Your task to perform on an android device: Add bose soundlink mini to the cart on target, then select checkout. Image 0: 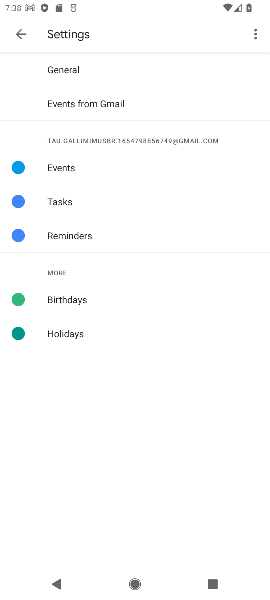
Step 0: press home button
Your task to perform on an android device: Add bose soundlink mini to the cart on target, then select checkout. Image 1: 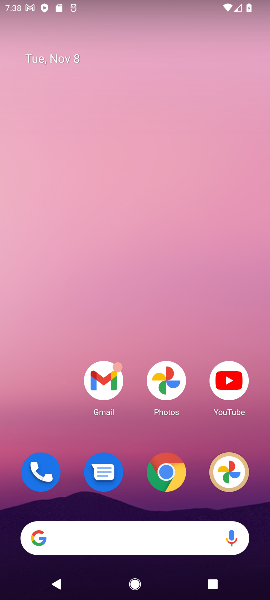
Step 1: click (162, 474)
Your task to perform on an android device: Add bose soundlink mini to the cart on target, then select checkout. Image 2: 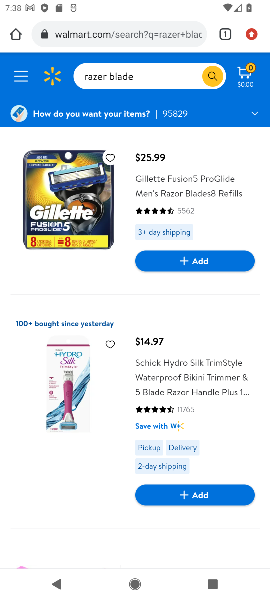
Step 2: click (134, 31)
Your task to perform on an android device: Add bose soundlink mini to the cart on target, then select checkout. Image 3: 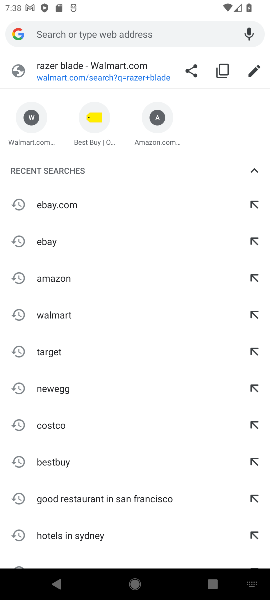
Step 3: click (50, 351)
Your task to perform on an android device: Add bose soundlink mini to the cart on target, then select checkout. Image 4: 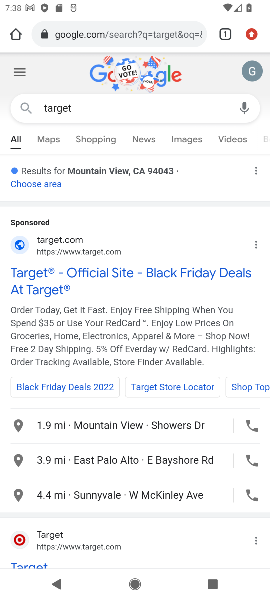
Step 4: click (92, 268)
Your task to perform on an android device: Add bose soundlink mini to the cart on target, then select checkout. Image 5: 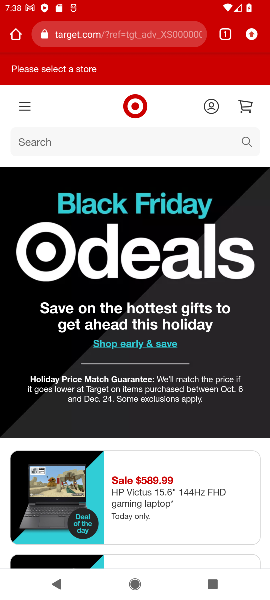
Step 5: click (57, 142)
Your task to perform on an android device: Add bose soundlink mini to the cart on target, then select checkout. Image 6: 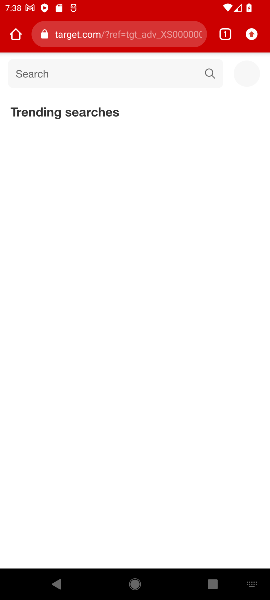
Step 6: click (53, 73)
Your task to perform on an android device: Add bose soundlink mini to the cart on target, then select checkout. Image 7: 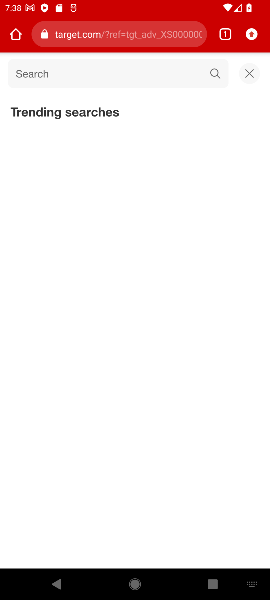
Step 7: type "bose soundlink mini"
Your task to perform on an android device: Add bose soundlink mini to the cart on target, then select checkout. Image 8: 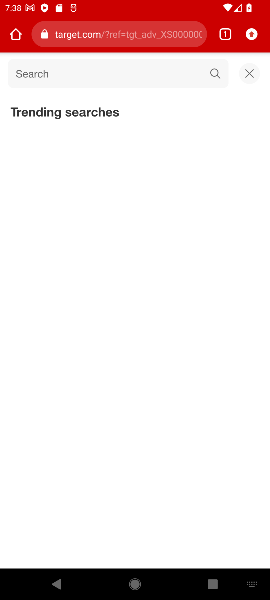
Step 8: press enter
Your task to perform on an android device: Add bose soundlink mini to the cart on target, then select checkout. Image 9: 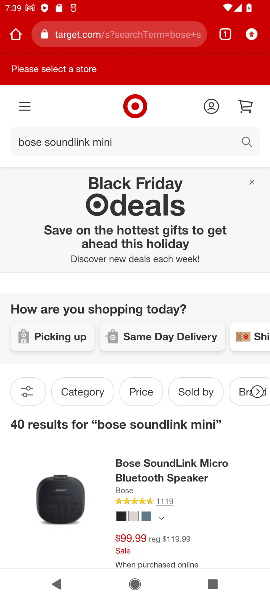
Step 9: drag from (214, 450) to (221, 309)
Your task to perform on an android device: Add bose soundlink mini to the cart on target, then select checkout. Image 10: 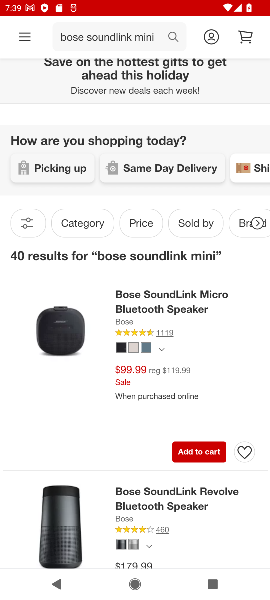
Step 10: click (197, 454)
Your task to perform on an android device: Add bose soundlink mini to the cart on target, then select checkout. Image 11: 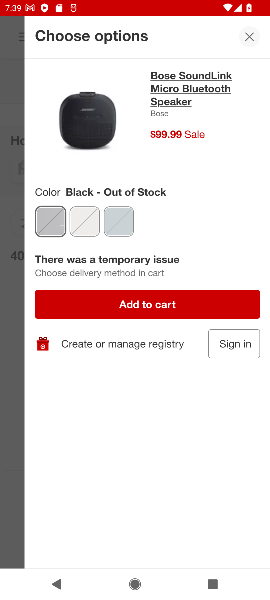
Step 11: click (156, 307)
Your task to perform on an android device: Add bose soundlink mini to the cart on target, then select checkout. Image 12: 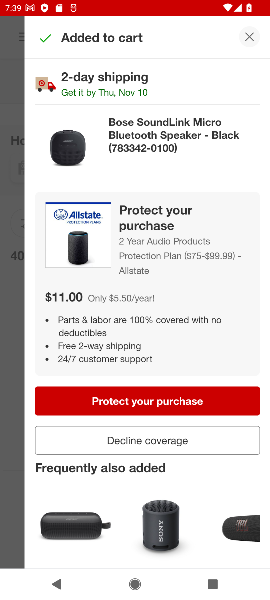
Step 12: click (138, 434)
Your task to perform on an android device: Add bose soundlink mini to the cart on target, then select checkout. Image 13: 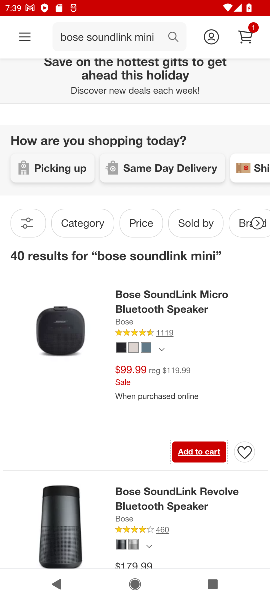
Step 13: click (247, 31)
Your task to perform on an android device: Add bose soundlink mini to the cart on target, then select checkout. Image 14: 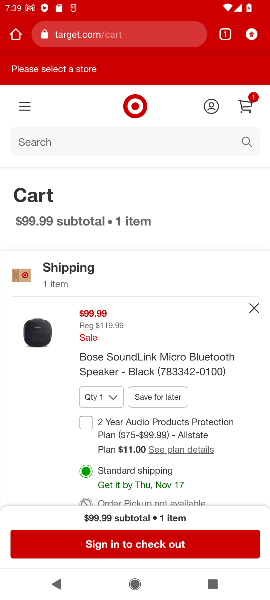
Step 14: drag from (81, 468) to (219, 237)
Your task to perform on an android device: Add bose soundlink mini to the cart on target, then select checkout. Image 15: 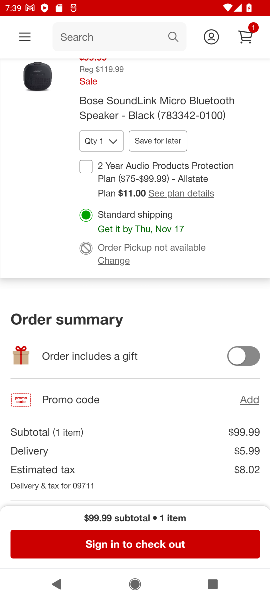
Step 15: click (152, 546)
Your task to perform on an android device: Add bose soundlink mini to the cart on target, then select checkout. Image 16: 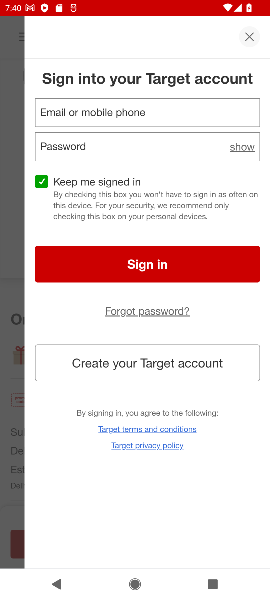
Step 16: task complete